Your task to perform on an android device: What's the weather going to be this weekend? Image 0: 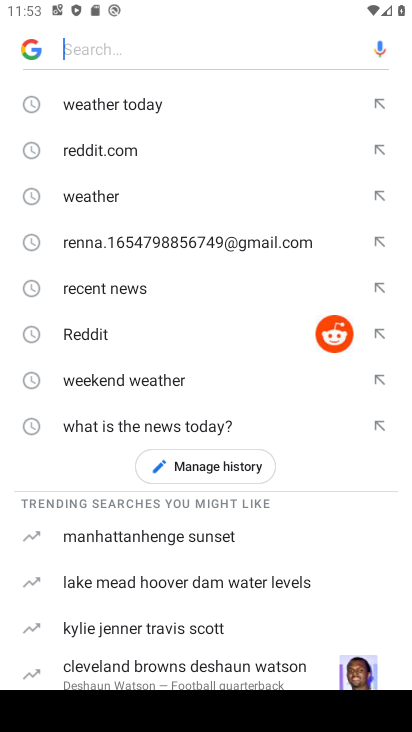
Step 0: press home button
Your task to perform on an android device: What's the weather going to be this weekend? Image 1: 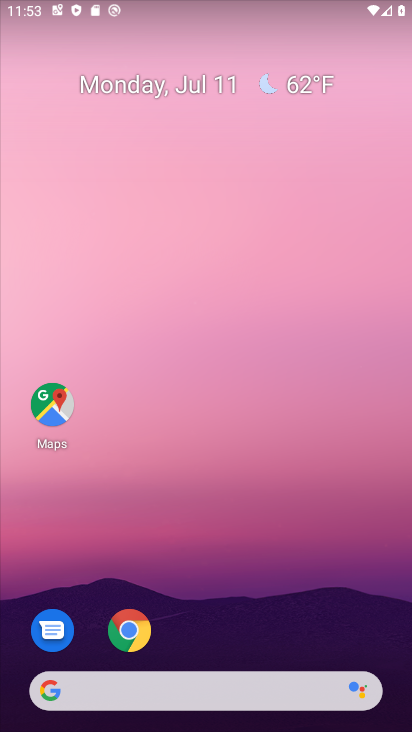
Step 1: drag from (226, 694) to (257, 53)
Your task to perform on an android device: What's the weather going to be this weekend? Image 2: 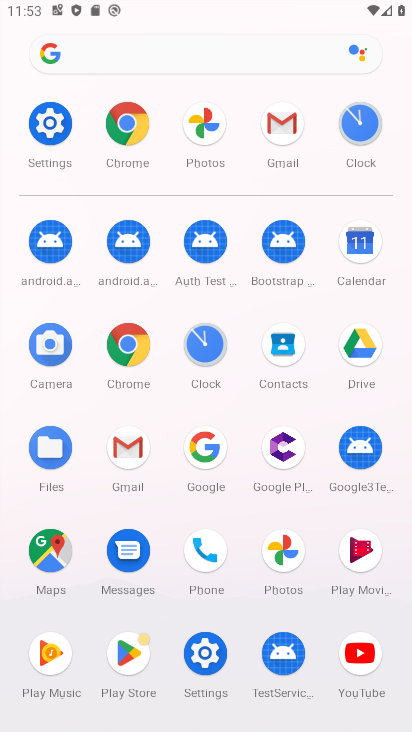
Step 2: click (354, 232)
Your task to perform on an android device: What's the weather going to be this weekend? Image 3: 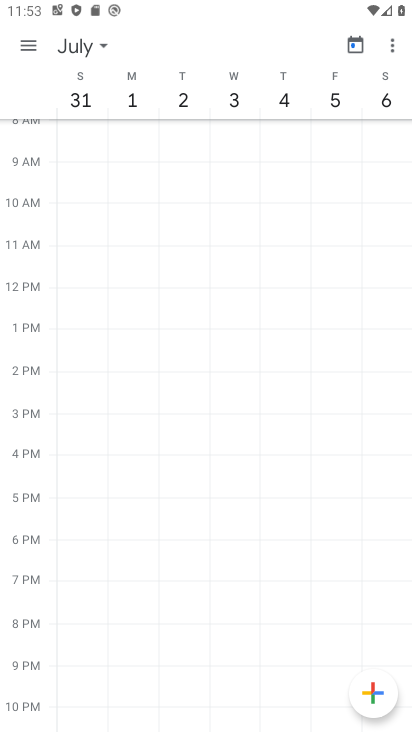
Step 3: click (98, 44)
Your task to perform on an android device: What's the weather going to be this weekend? Image 4: 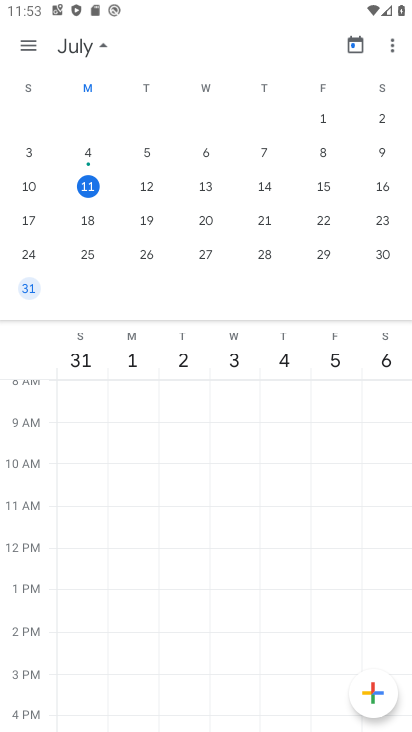
Step 4: press home button
Your task to perform on an android device: What's the weather going to be this weekend? Image 5: 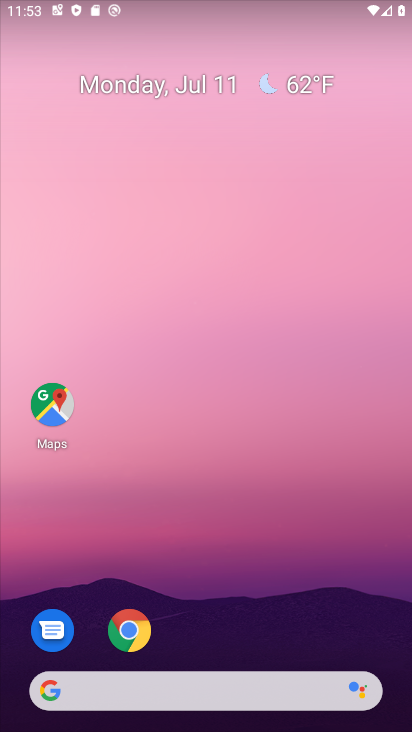
Step 5: drag from (192, 677) to (243, 48)
Your task to perform on an android device: What's the weather going to be this weekend? Image 6: 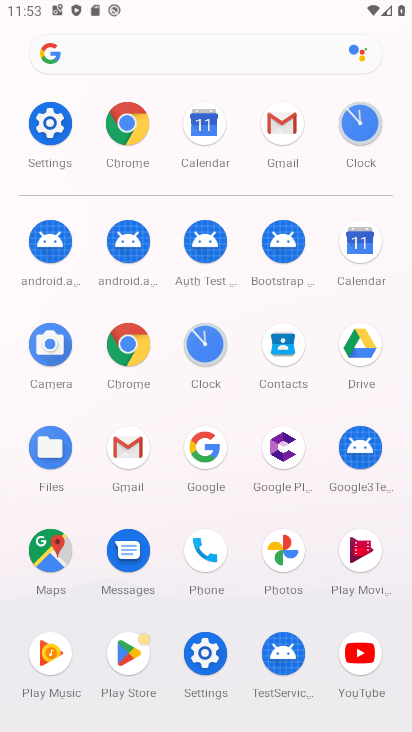
Step 6: click (363, 242)
Your task to perform on an android device: What's the weather going to be this weekend? Image 7: 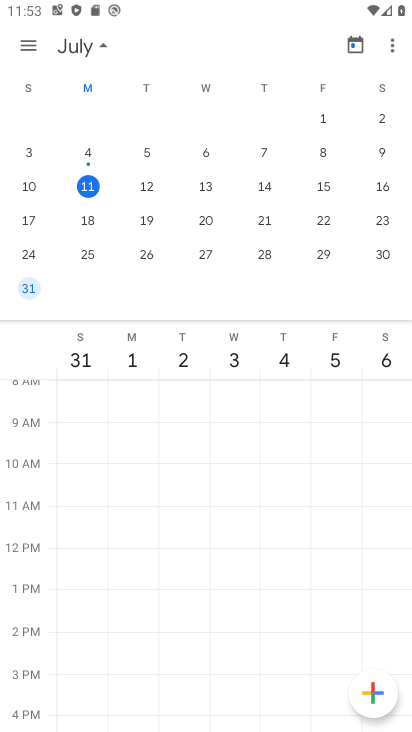
Step 7: click (382, 186)
Your task to perform on an android device: What's the weather going to be this weekend? Image 8: 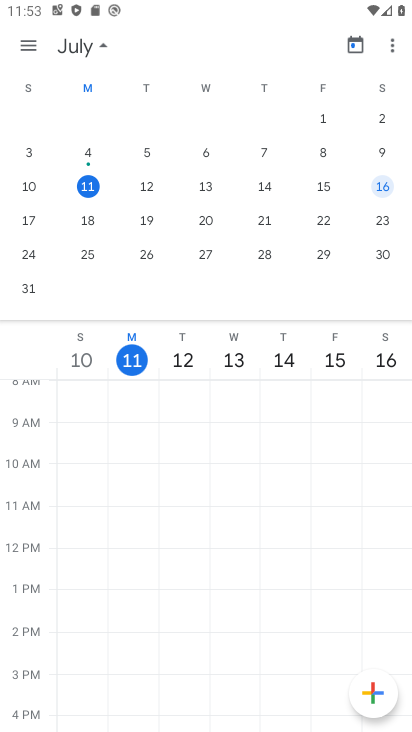
Step 8: task complete